Your task to perform on an android device: toggle show notifications on the lock screen Image 0: 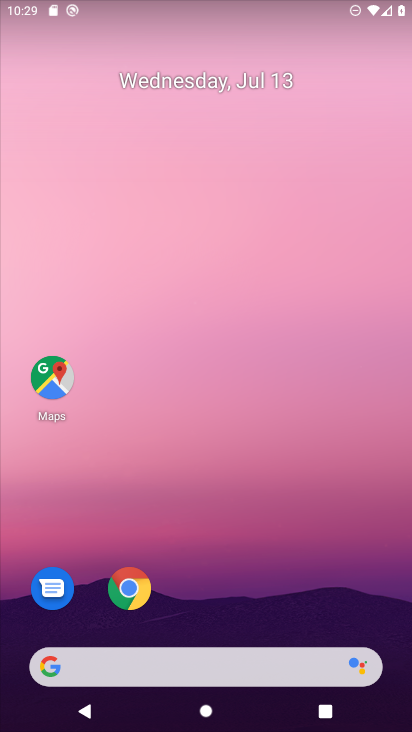
Step 0: drag from (193, 625) to (170, 232)
Your task to perform on an android device: toggle show notifications on the lock screen Image 1: 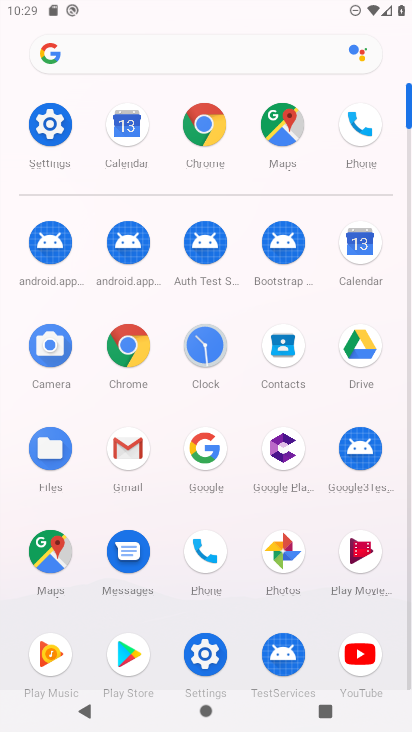
Step 1: click (208, 651)
Your task to perform on an android device: toggle show notifications on the lock screen Image 2: 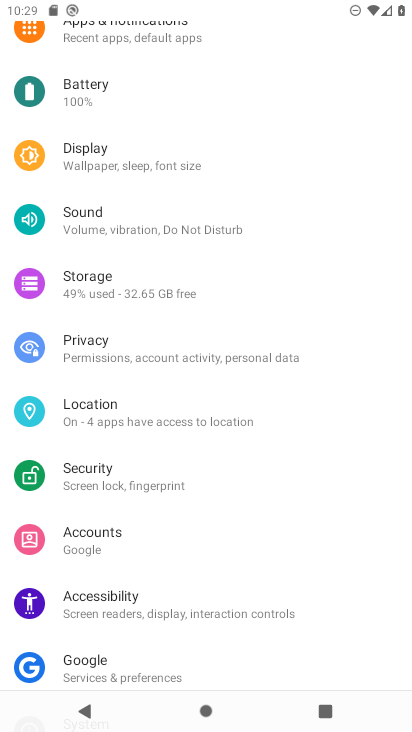
Step 2: drag from (138, 163) to (124, 502)
Your task to perform on an android device: toggle show notifications on the lock screen Image 3: 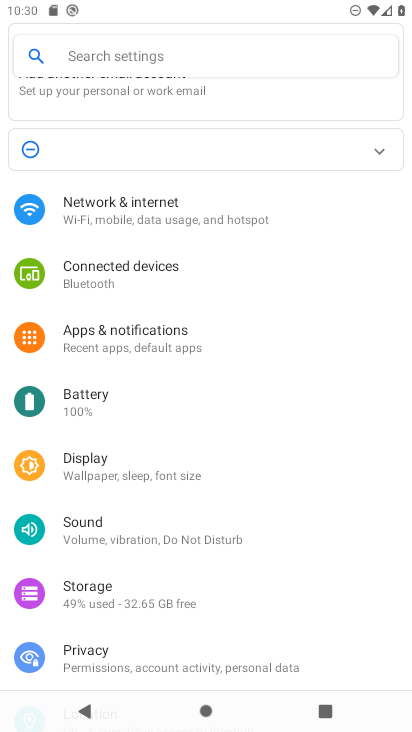
Step 3: click (129, 332)
Your task to perform on an android device: toggle show notifications on the lock screen Image 4: 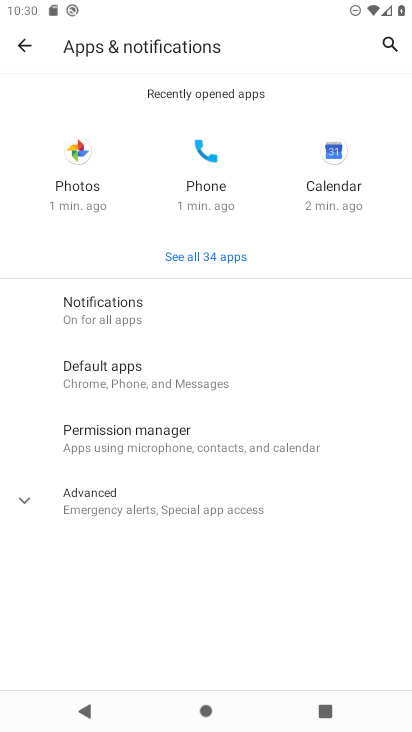
Step 4: click (115, 307)
Your task to perform on an android device: toggle show notifications on the lock screen Image 5: 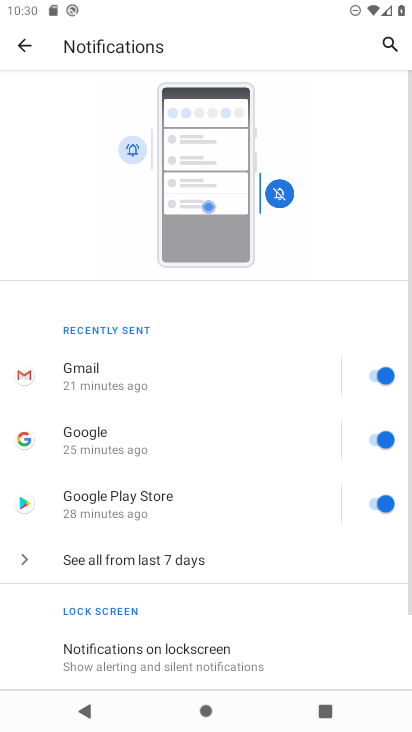
Step 5: click (99, 648)
Your task to perform on an android device: toggle show notifications on the lock screen Image 6: 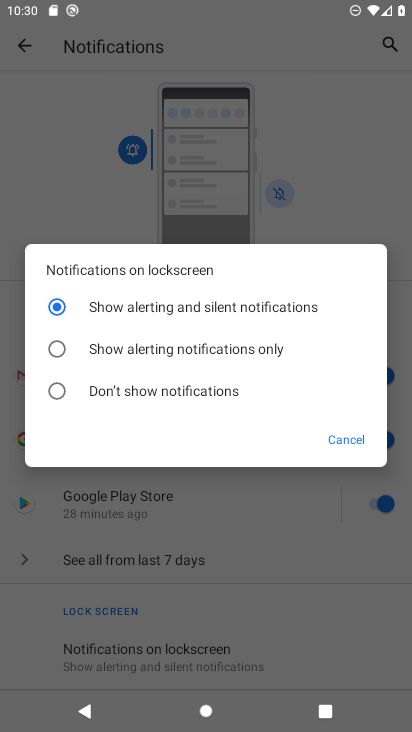
Step 6: click (105, 338)
Your task to perform on an android device: toggle show notifications on the lock screen Image 7: 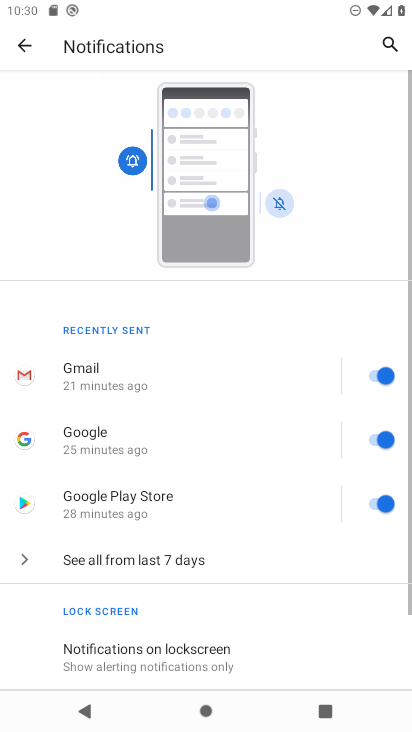
Step 7: task complete